Your task to perform on an android device: Clear all items from cart on target. Search for "logitech g910" on target, select the first entry, and add it to the cart. Image 0: 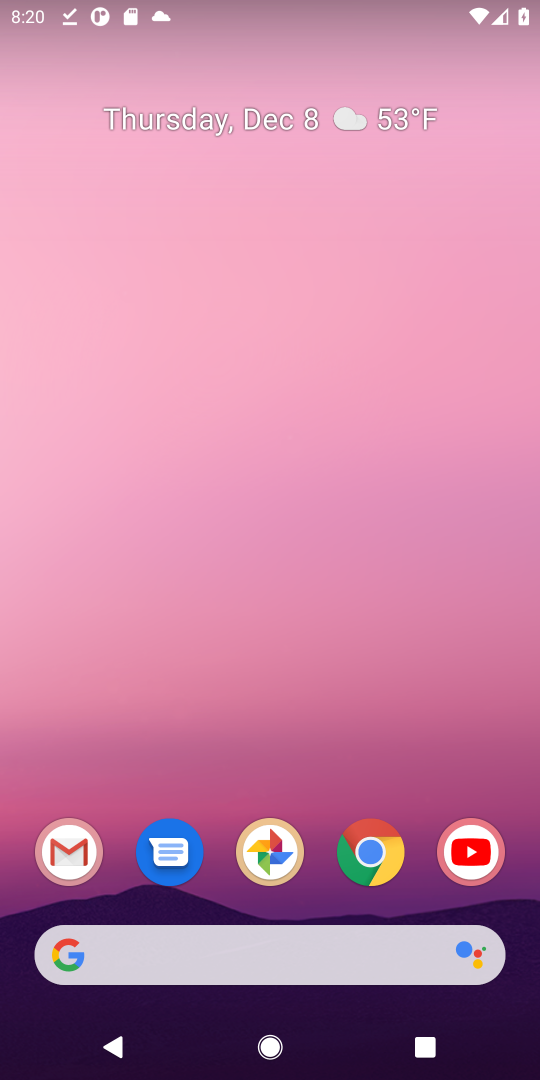
Step 0: click (322, 959)
Your task to perform on an android device: Clear all items from cart on target. Search for "logitech g910" on target, select the first entry, and add it to the cart. Image 1: 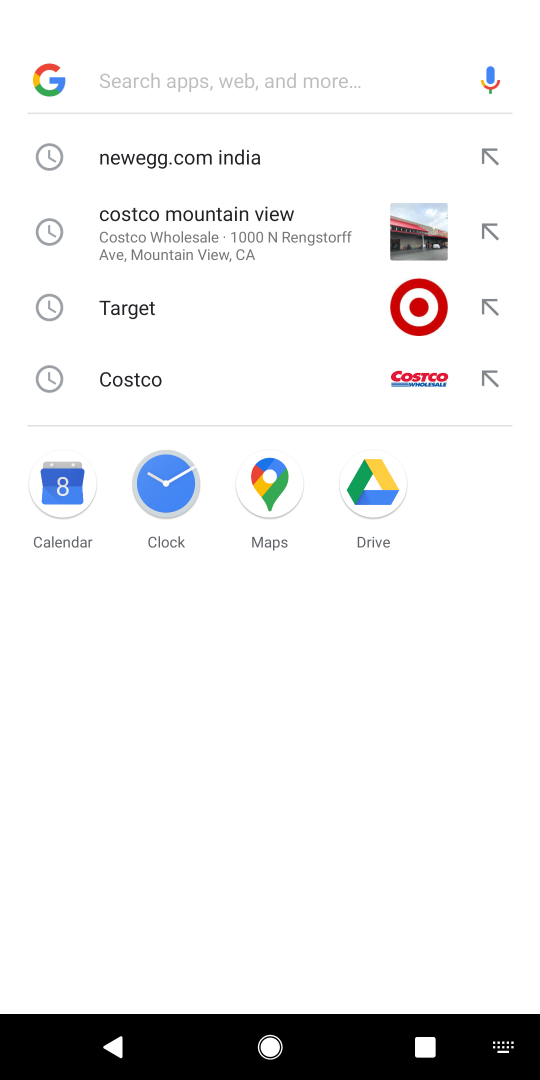
Step 1: type "target"
Your task to perform on an android device: Clear all items from cart on target. Search for "logitech g910" on target, select the first entry, and add it to the cart. Image 2: 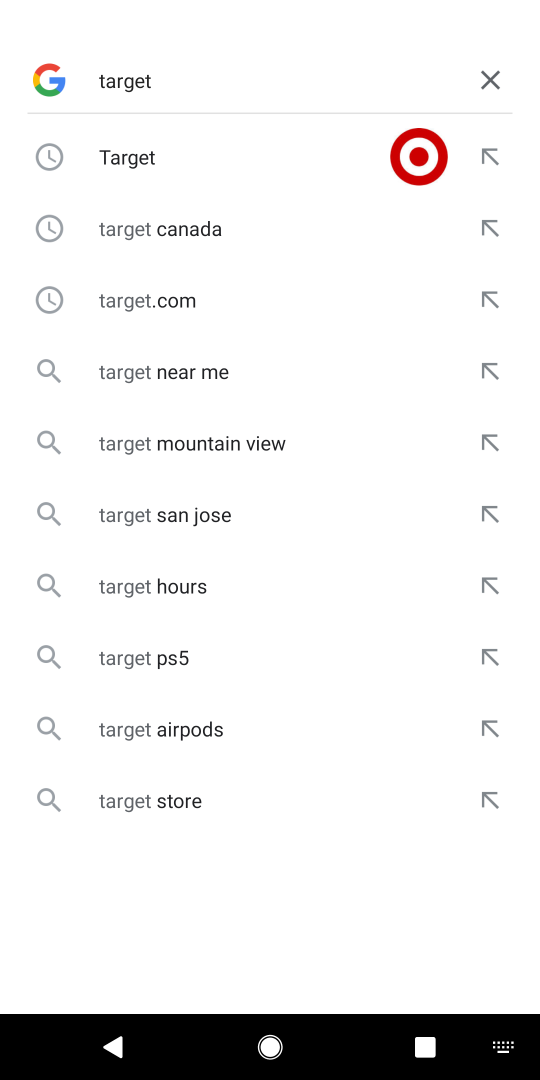
Step 2: type "'"
Your task to perform on an android device: Clear all items from cart on target. Search for "logitech g910" on target, select the first entry, and add it to the cart. Image 3: 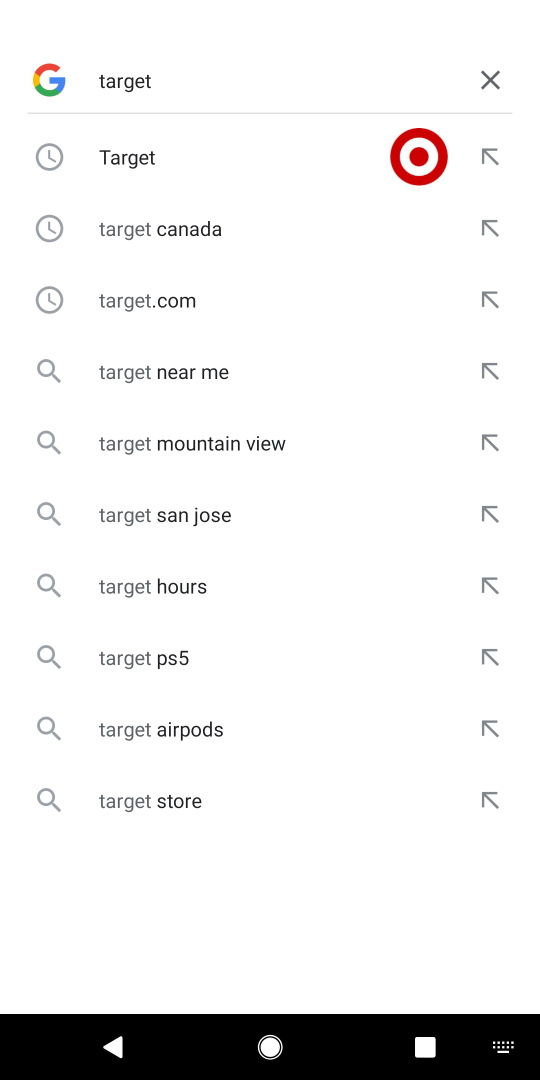
Step 3: click (120, 149)
Your task to perform on an android device: Clear all items from cart on target. Search for "logitech g910" on target, select the first entry, and add it to the cart. Image 4: 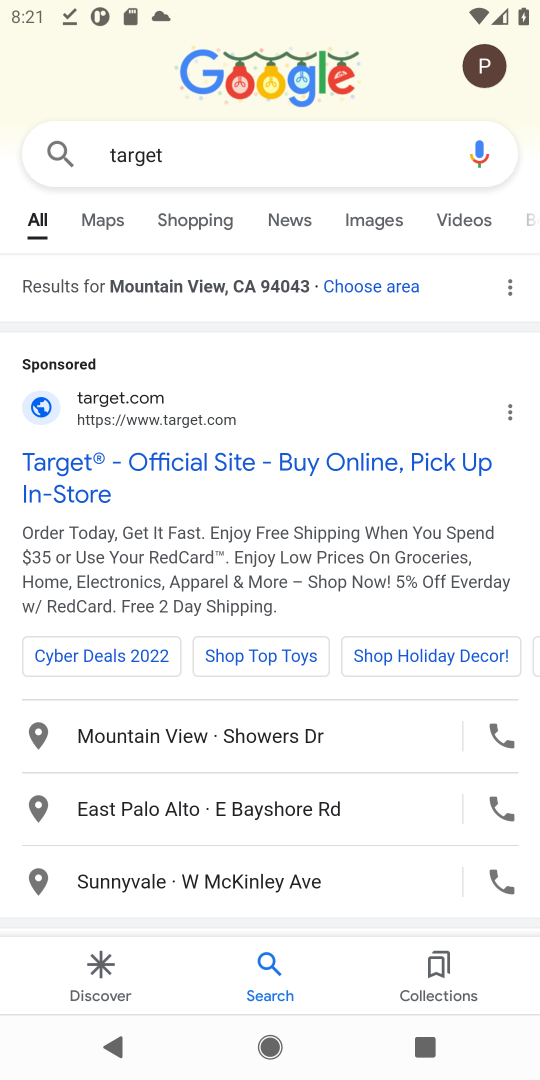
Step 4: click (50, 501)
Your task to perform on an android device: Clear all items from cart on target. Search for "logitech g910" on target, select the first entry, and add it to the cart. Image 5: 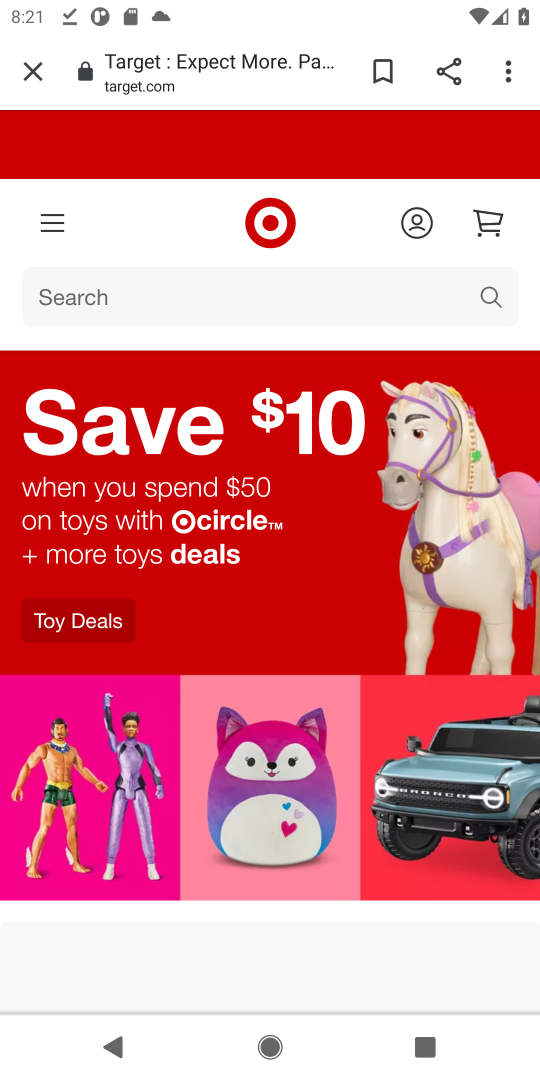
Step 5: click (145, 300)
Your task to perform on an android device: Clear all items from cart on target. Search for "logitech g910" on target, select the first entry, and add it to the cart. Image 6: 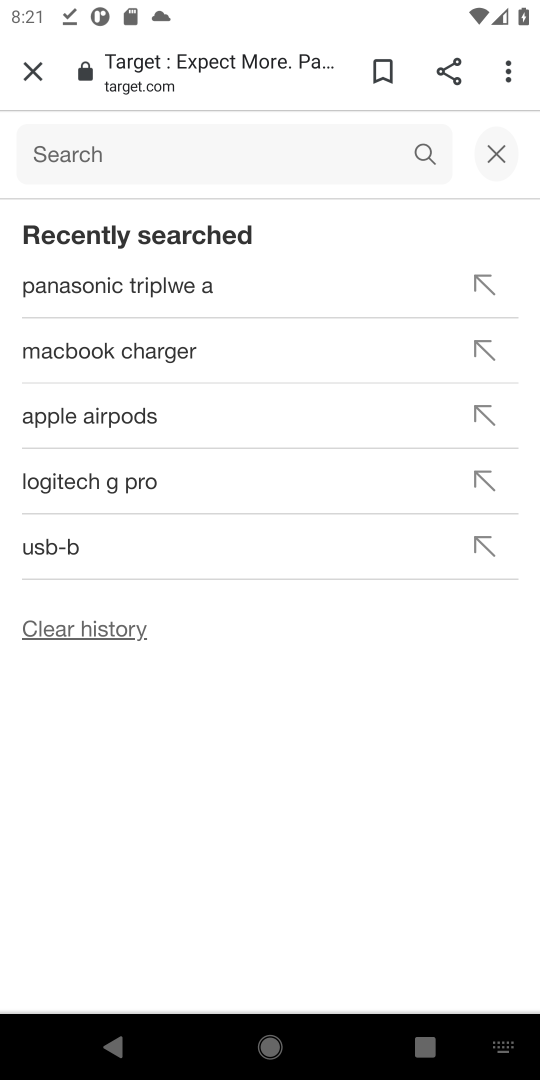
Step 6: type "logitech g910"
Your task to perform on an android device: Clear all items from cart on target. Search for "logitech g910" on target, select the first entry, and add it to the cart. Image 7: 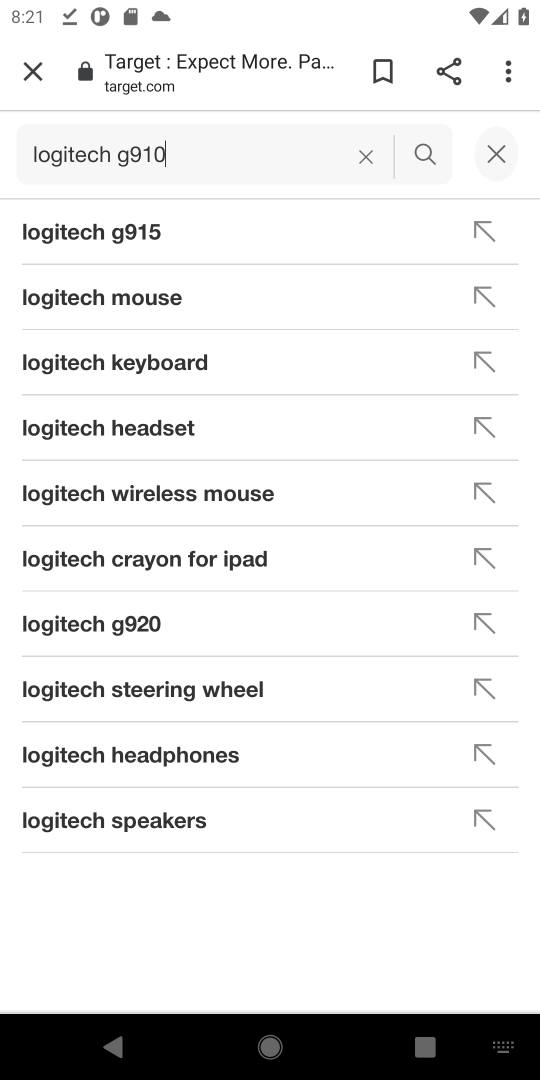
Step 7: click (439, 168)
Your task to perform on an android device: Clear all items from cart on target. Search for "logitech g910" on target, select the first entry, and add it to the cart. Image 8: 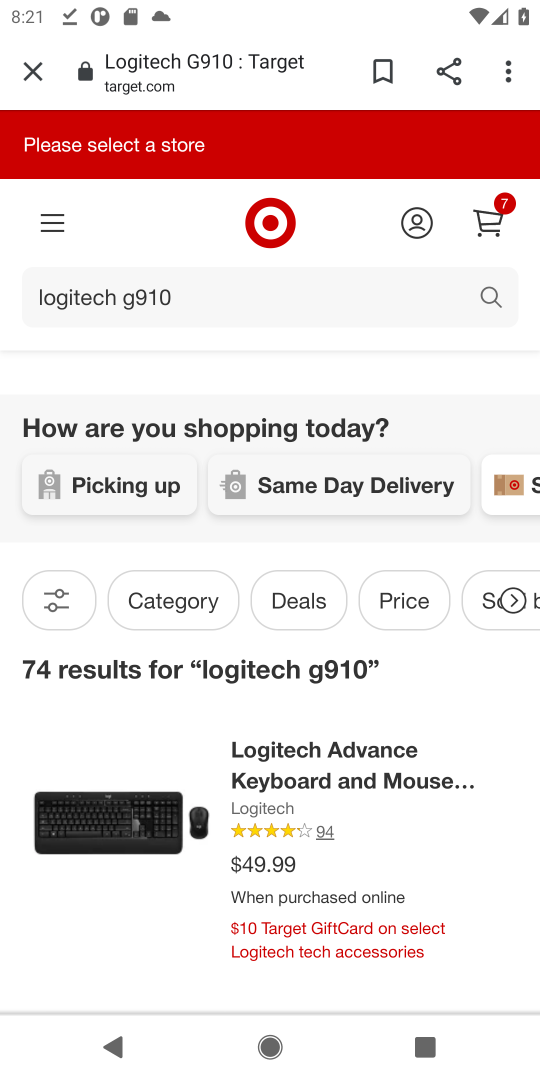
Step 8: drag from (414, 815) to (380, 275)
Your task to perform on an android device: Clear all items from cart on target. Search for "logitech g910" on target, select the first entry, and add it to the cart. Image 9: 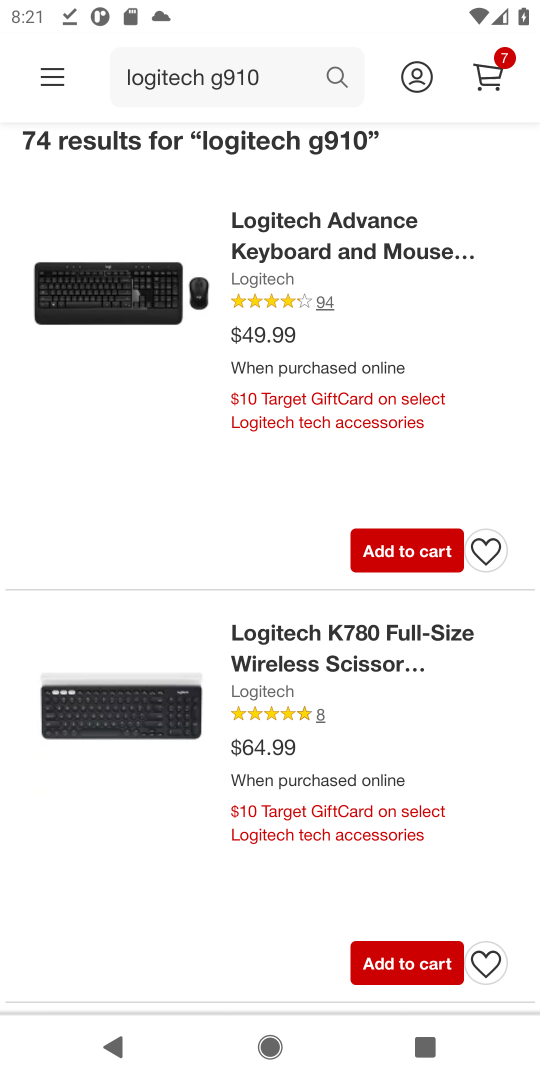
Step 9: click (378, 559)
Your task to perform on an android device: Clear all items from cart on target. Search for "logitech g910" on target, select the first entry, and add it to the cart. Image 10: 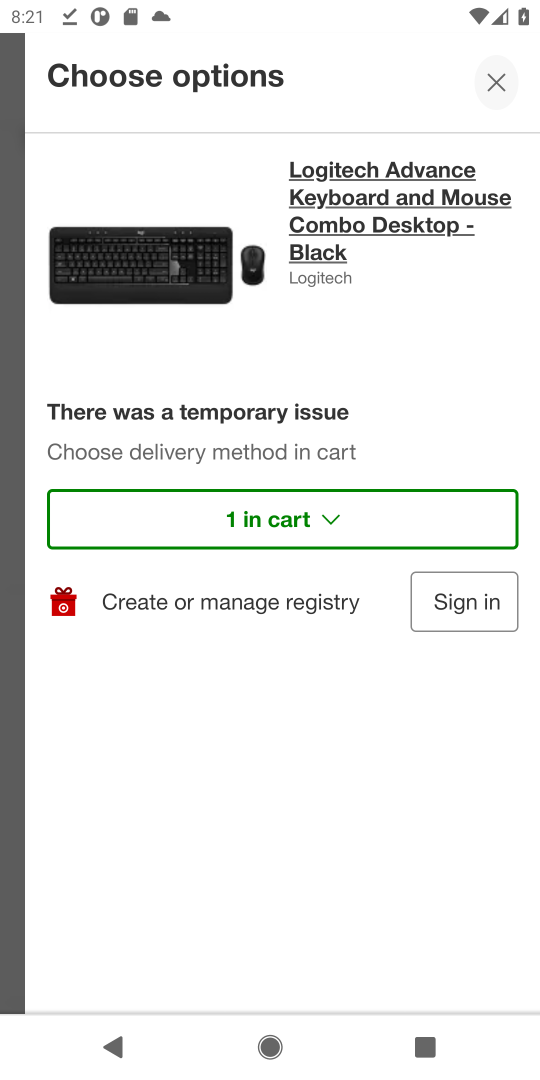
Step 10: task complete